Your task to perform on an android device: see sites visited before in the chrome app Image 0: 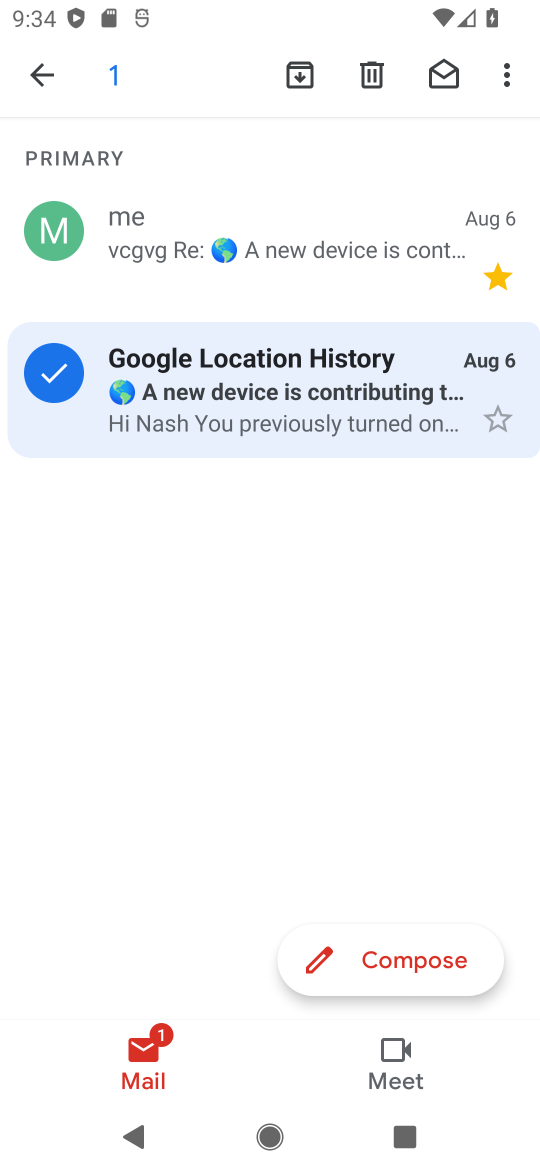
Step 0: press home button
Your task to perform on an android device: see sites visited before in the chrome app Image 1: 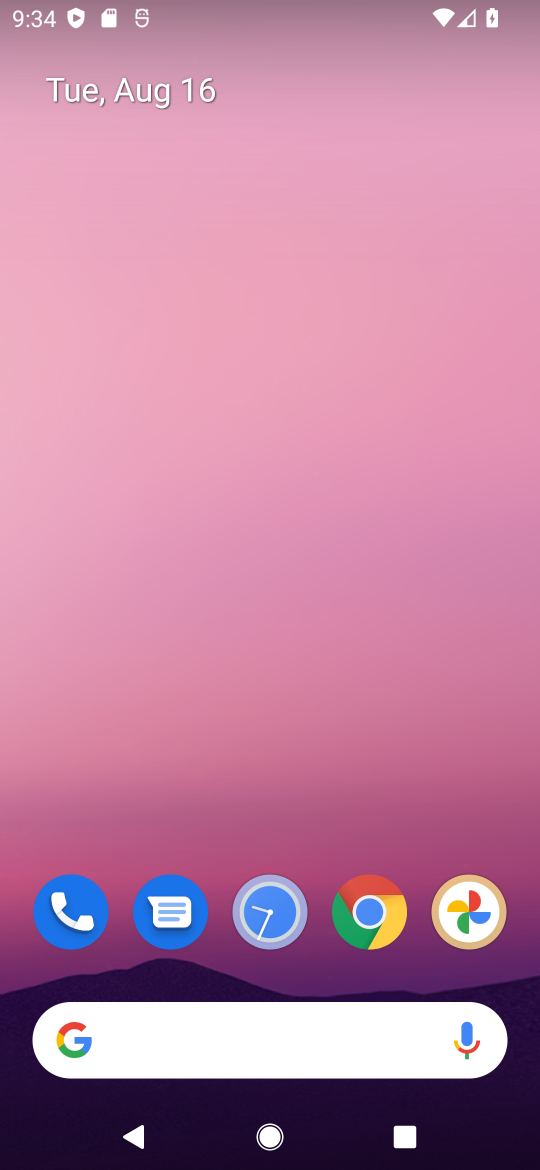
Step 1: click (376, 902)
Your task to perform on an android device: see sites visited before in the chrome app Image 2: 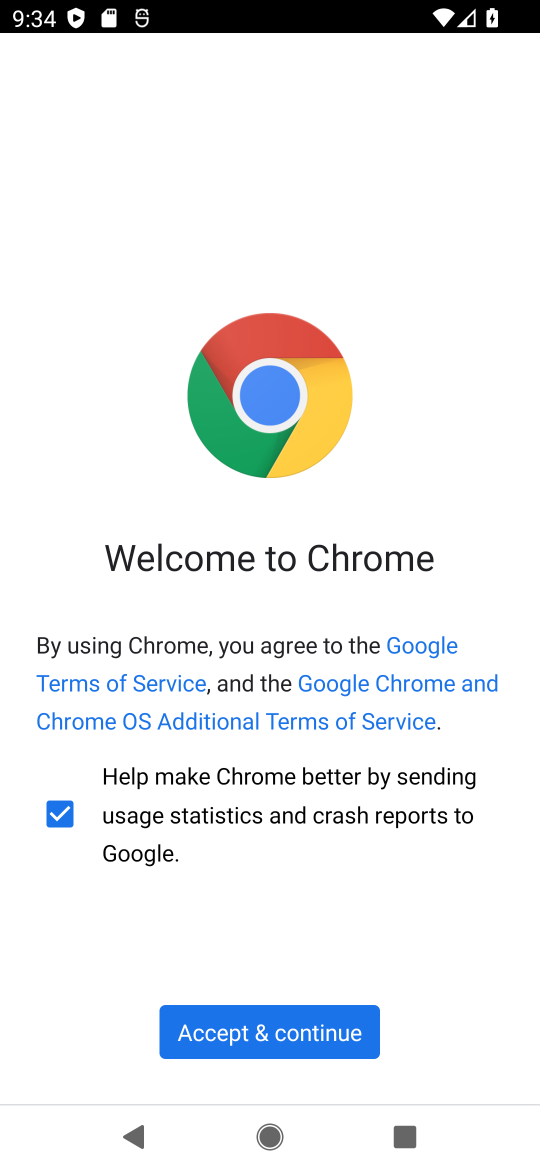
Step 2: click (331, 1045)
Your task to perform on an android device: see sites visited before in the chrome app Image 3: 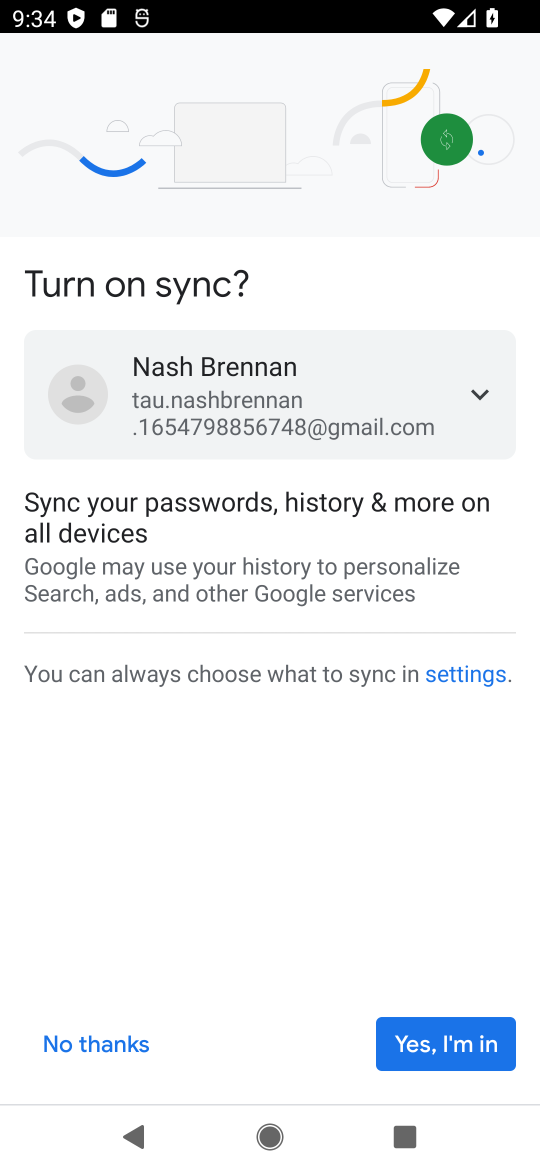
Step 3: click (424, 1055)
Your task to perform on an android device: see sites visited before in the chrome app Image 4: 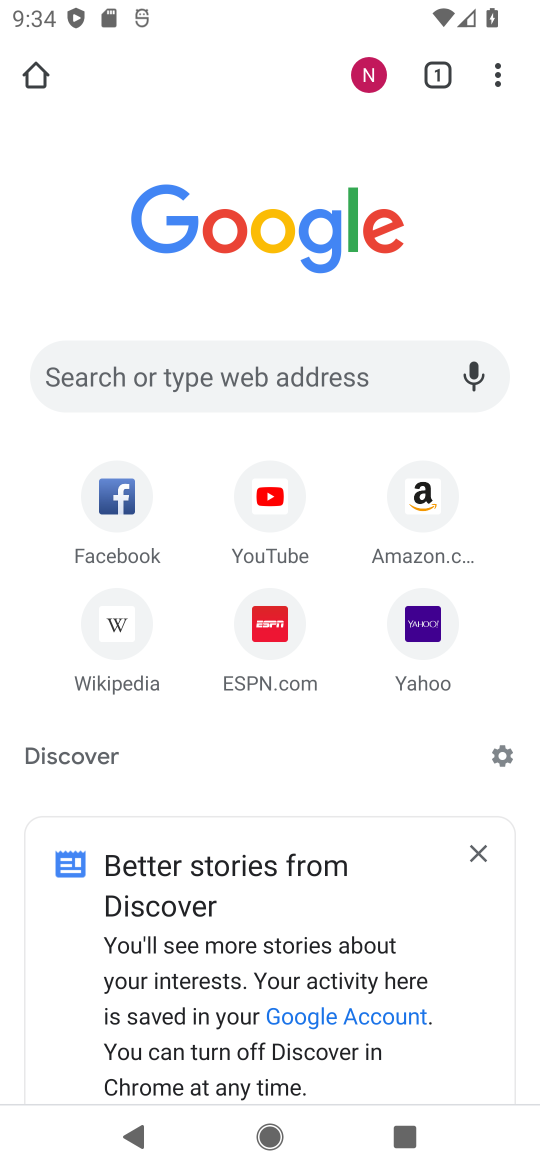
Step 4: click (506, 79)
Your task to perform on an android device: see sites visited before in the chrome app Image 5: 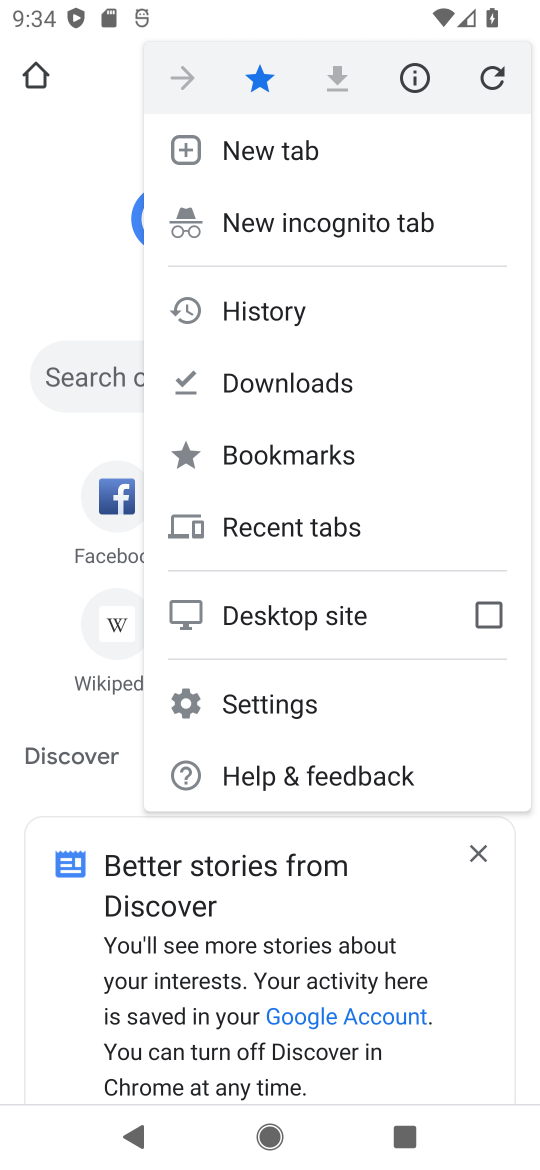
Step 5: click (293, 550)
Your task to perform on an android device: see sites visited before in the chrome app Image 6: 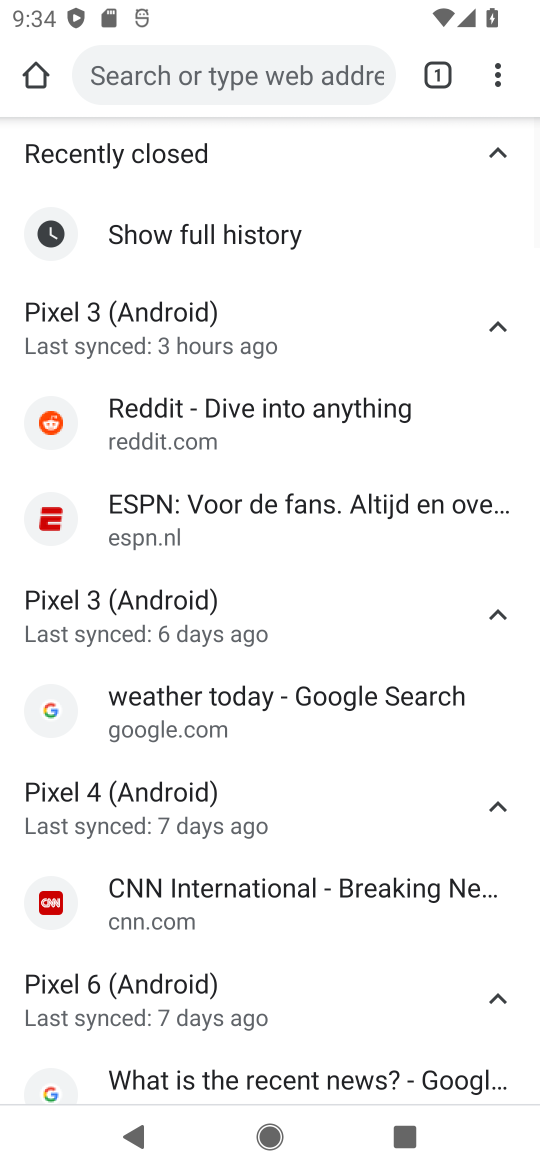
Step 6: task complete